Your task to perform on an android device: turn on showing notifications on the lock screen Image 0: 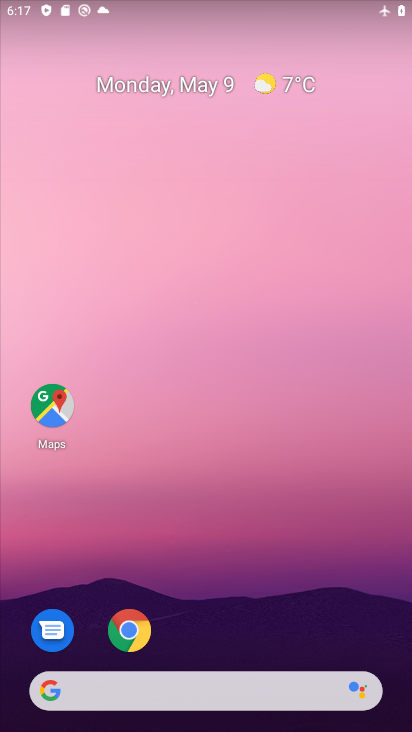
Step 0: drag from (234, 463) to (234, 278)
Your task to perform on an android device: turn on showing notifications on the lock screen Image 1: 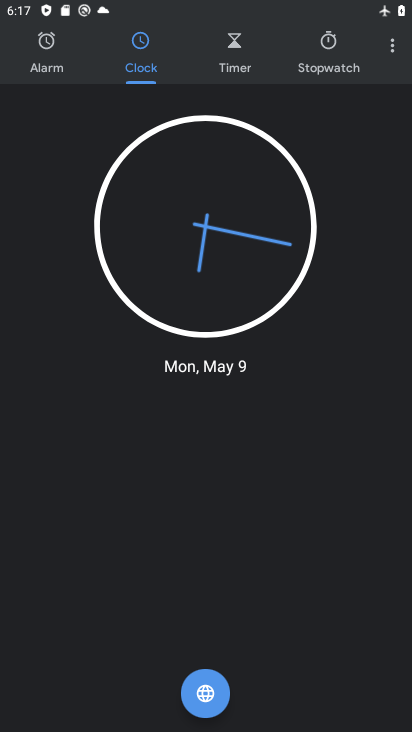
Step 1: press home button
Your task to perform on an android device: turn on showing notifications on the lock screen Image 2: 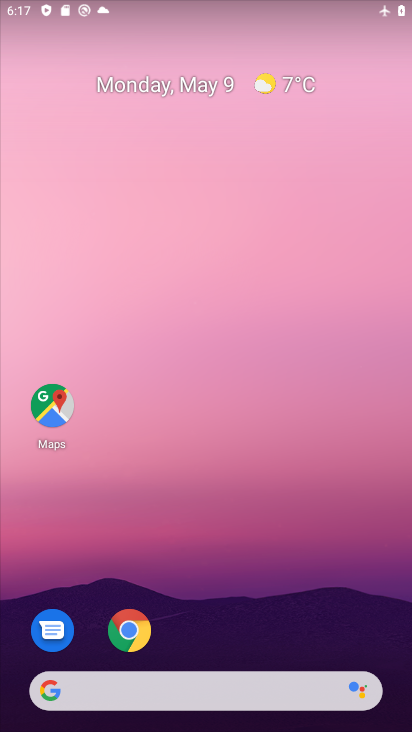
Step 2: drag from (256, 593) to (265, 237)
Your task to perform on an android device: turn on showing notifications on the lock screen Image 3: 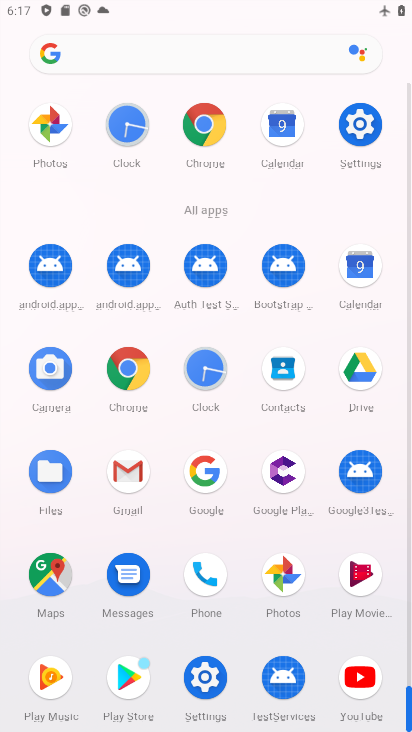
Step 3: drag from (236, 624) to (232, 339)
Your task to perform on an android device: turn on showing notifications on the lock screen Image 4: 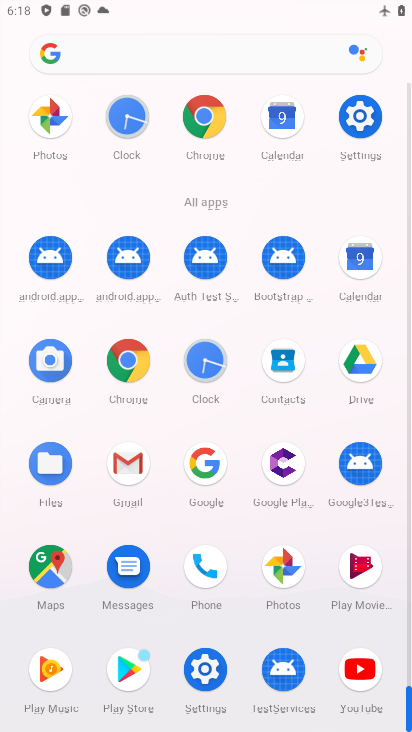
Step 4: click (199, 668)
Your task to perform on an android device: turn on showing notifications on the lock screen Image 5: 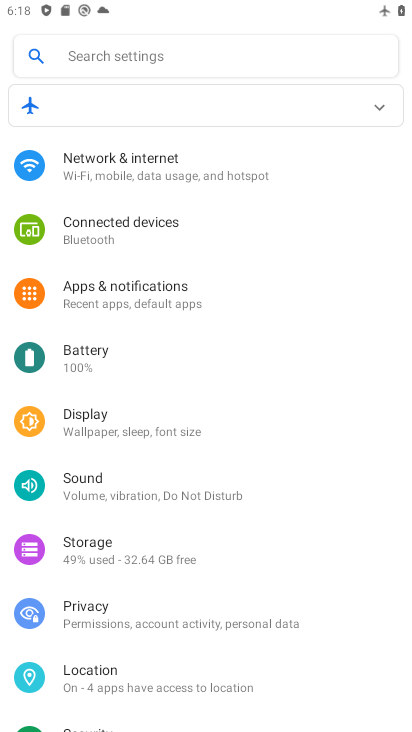
Step 5: drag from (188, 572) to (240, 264)
Your task to perform on an android device: turn on showing notifications on the lock screen Image 6: 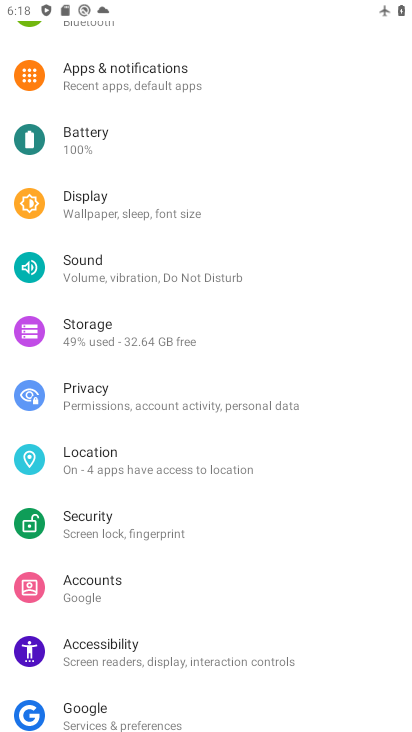
Step 6: drag from (254, 237) to (129, 651)
Your task to perform on an android device: turn on showing notifications on the lock screen Image 7: 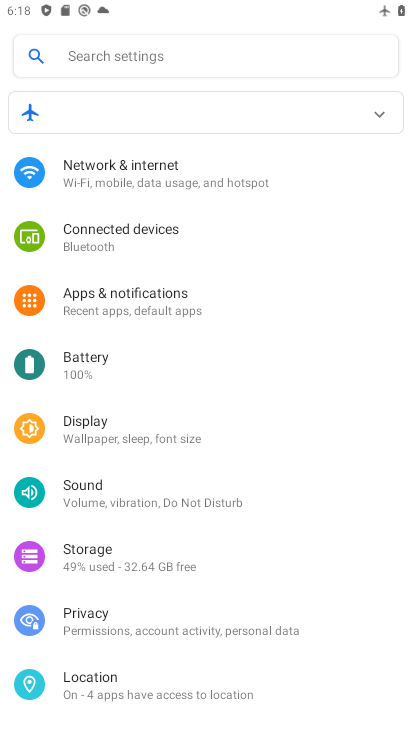
Step 7: click (117, 185)
Your task to perform on an android device: turn on showing notifications on the lock screen Image 8: 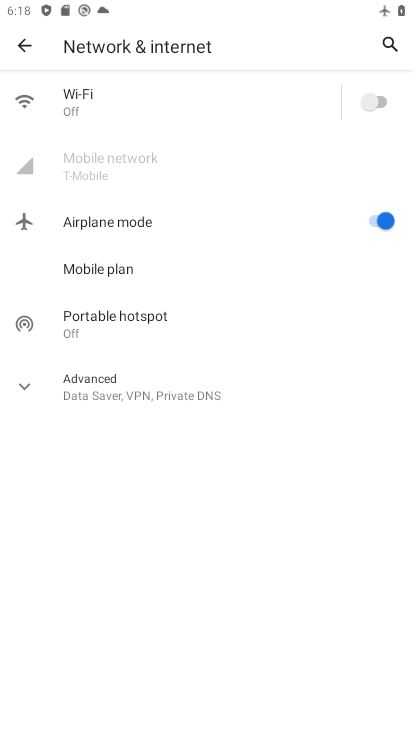
Step 8: press back button
Your task to perform on an android device: turn on showing notifications on the lock screen Image 9: 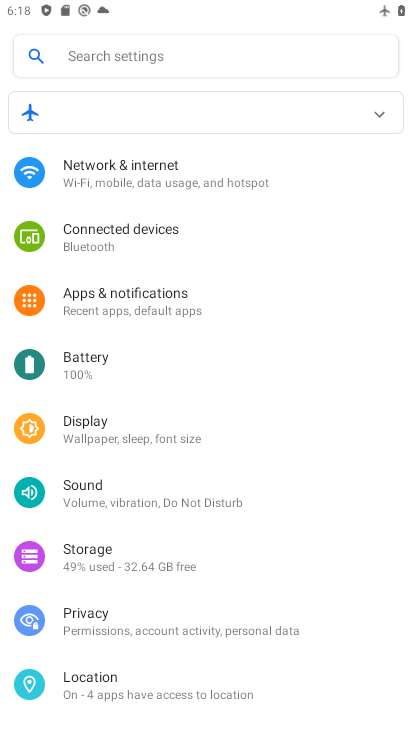
Step 9: drag from (211, 604) to (235, 235)
Your task to perform on an android device: turn on showing notifications on the lock screen Image 10: 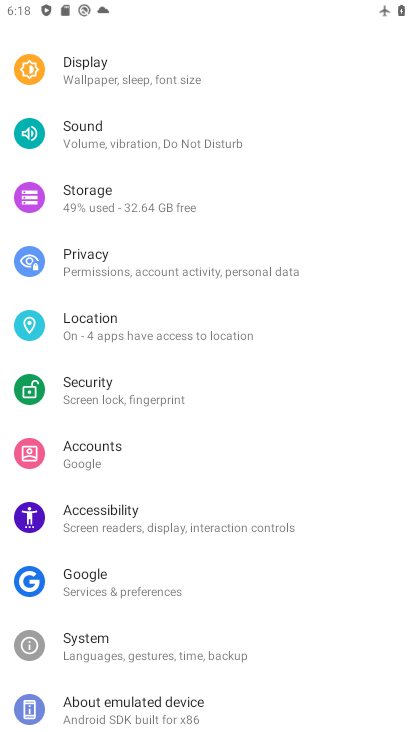
Step 10: drag from (133, 191) to (89, 496)
Your task to perform on an android device: turn on showing notifications on the lock screen Image 11: 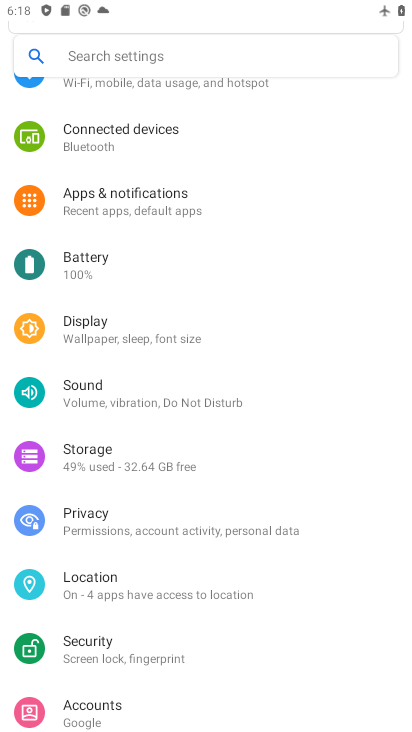
Step 11: click (119, 199)
Your task to perform on an android device: turn on showing notifications on the lock screen Image 12: 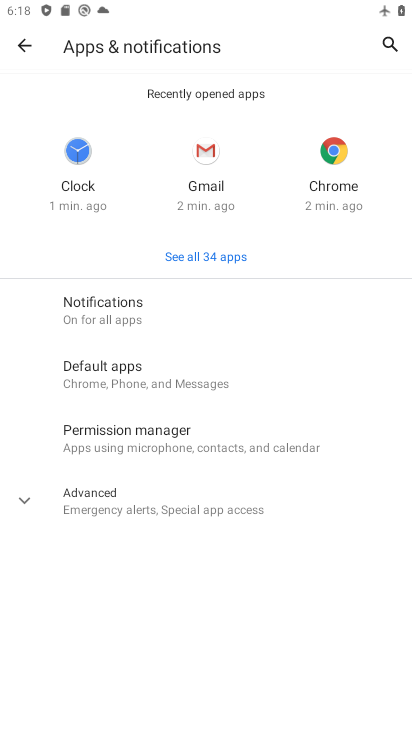
Step 12: click (119, 319)
Your task to perform on an android device: turn on showing notifications on the lock screen Image 13: 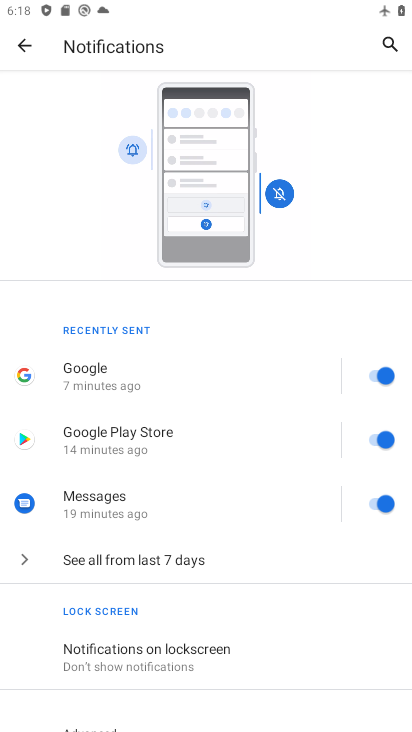
Step 13: click (129, 648)
Your task to perform on an android device: turn on showing notifications on the lock screen Image 14: 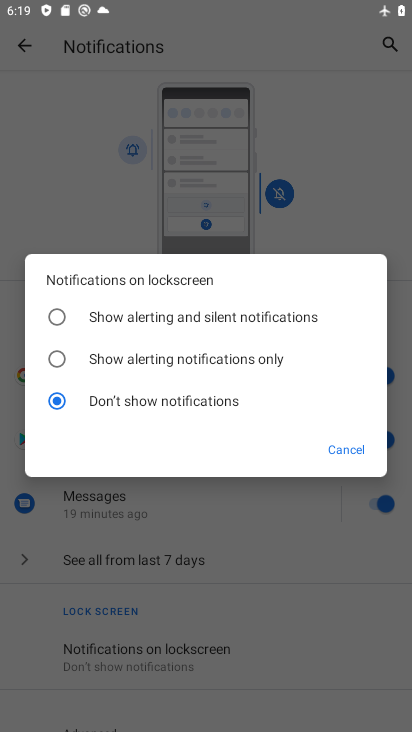
Step 14: click (57, 319)
Your task to perform on an android device: turn on showing notifications on the lock screen Image 15: 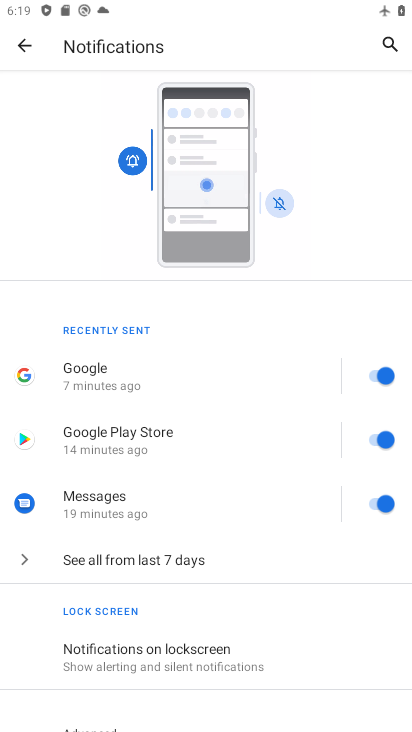
Step 15: task complete